Your task to perform on an android device: Open Chrome and go to the settings page Image 0: 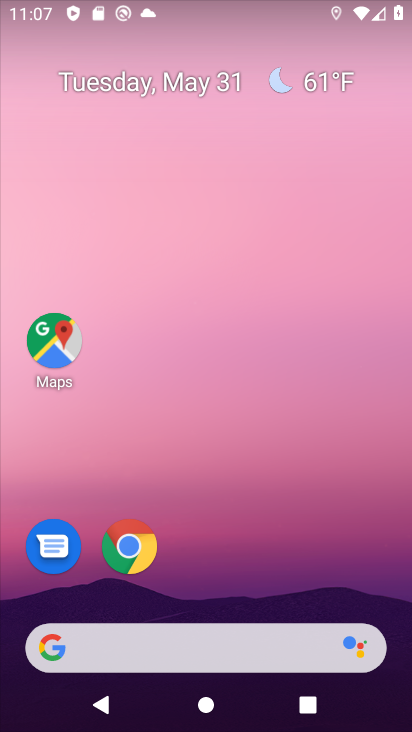
Step 0: click (144, 558)
Your task to perform on an android device: Open Chrome and go to the settings page Image 1: 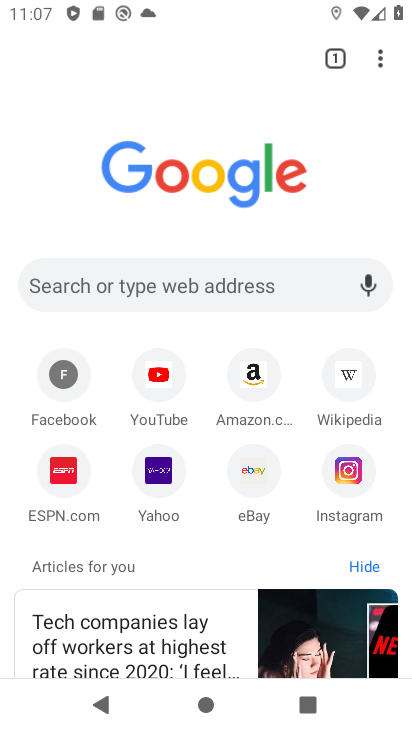
Step 1: drag from (380, 61) to (280, 342)
Your task to perform on an android device: Open Chrome and go to the settings page Image 2: 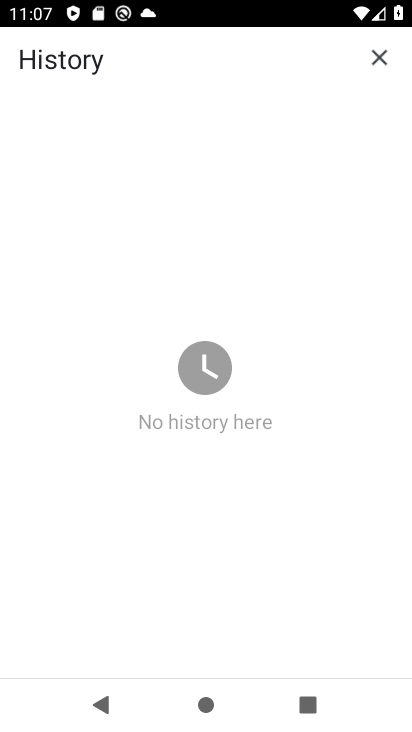
Step 2: click (383, 56)
Your task to perform on an android device: Open Chrome and go to the settings page Image 3: 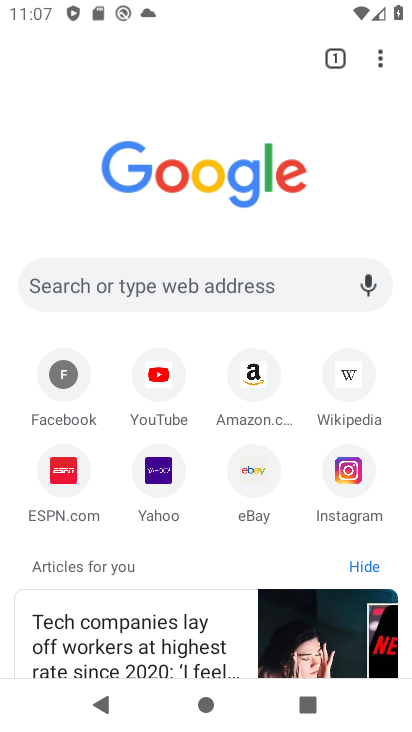
Step 3: task complete